Your task to perform on an android device: allow notifications from all sites in the chrome app Image 0: 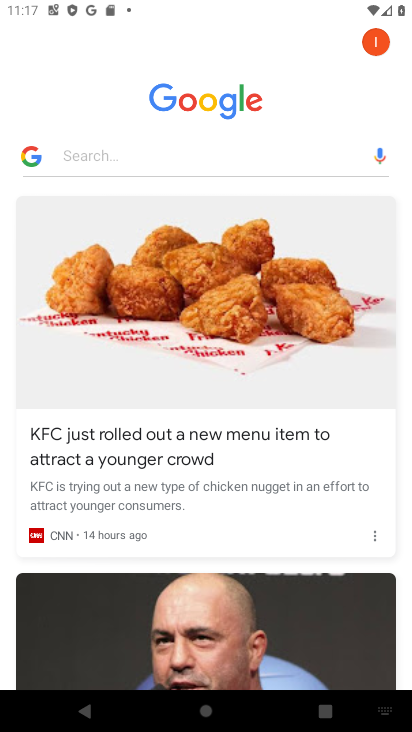
Step 0: press home button
Your task to perform on an android device: allow notifications from all sites in the chrome app Image 1: 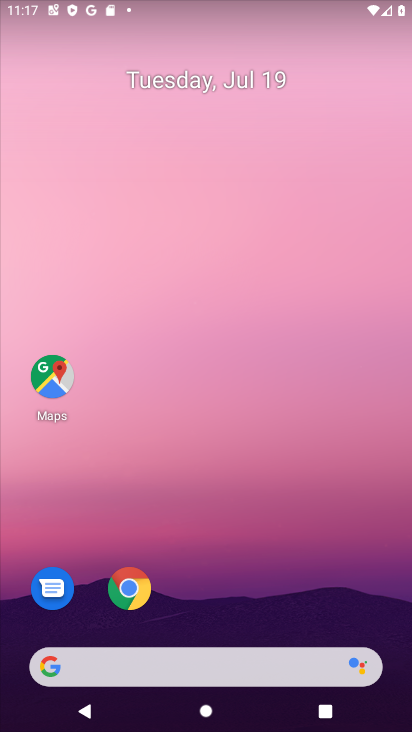
Step 1: drag from (230, 726) to (195, 338)
Your task to perform on an android device: allow notifications from all sites in the chrome app Image 2: 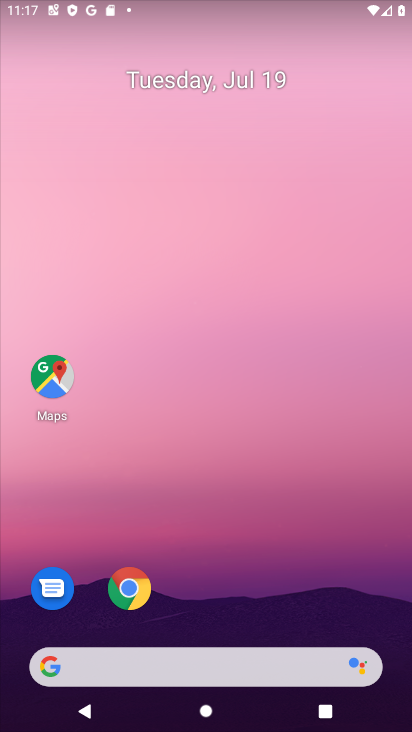
Step 2: drag from (235, 722) to (251, 235)
Your task to perform on an android device: allow notifications from all sites in the chrome app Image 3: 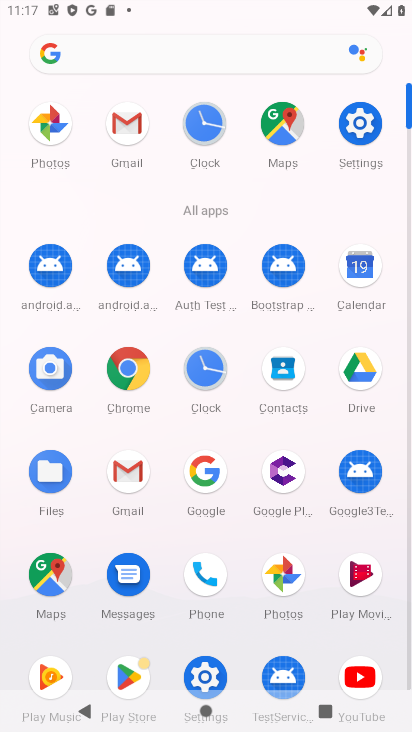
Step 3: click (131, 374)
Your task to perform on an android device: allow notifications from all sites in the chrome app Image 4: 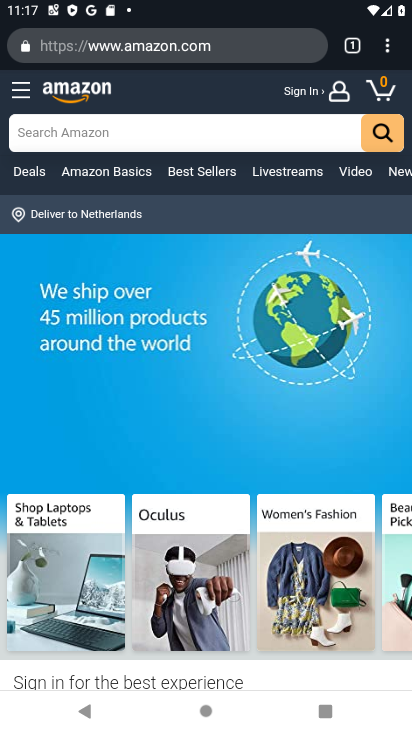
Step 4: click (389, 48)
Your task to perform on an android device: allow notifications from all sites in the chrome app Image 5: 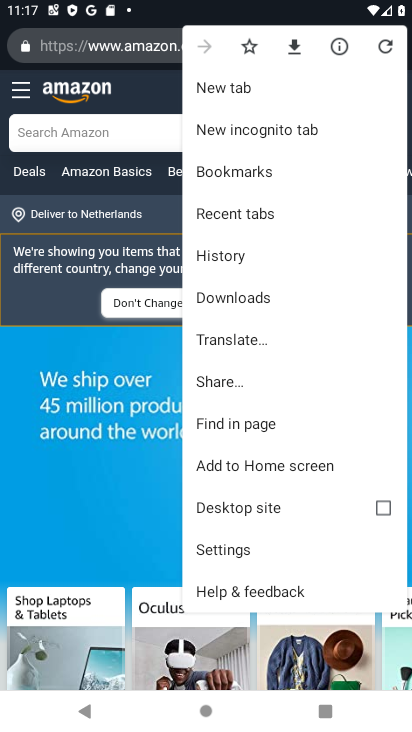
Step 5: click (218, 558)
Your task to perform on an android device: allow notifications from all sites in the chrome app Image 6: 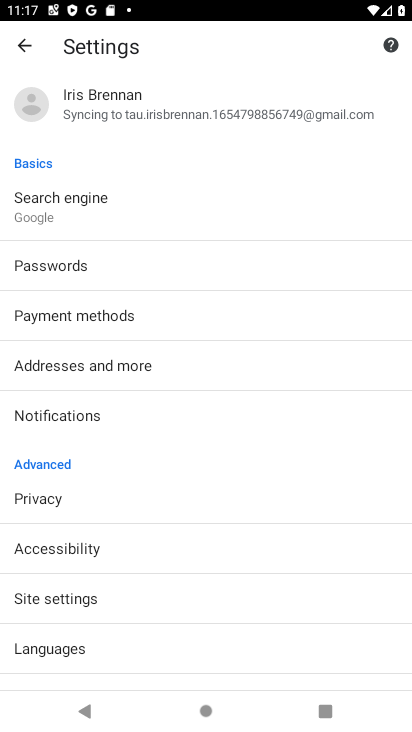
Step 6: click (26, 589)
Your task to perform on an android device: allow notifications from all sites in the chrome app Image 7: 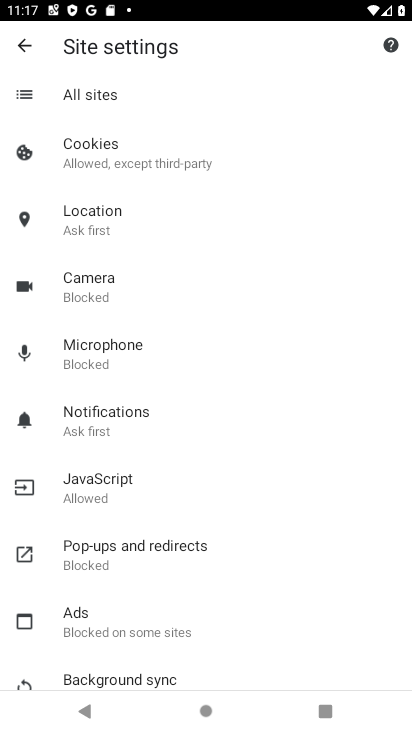
Step 7: click (103, 426)
Your task to perform on an android device: allow notifications from all sites in the chrome app Image 8: 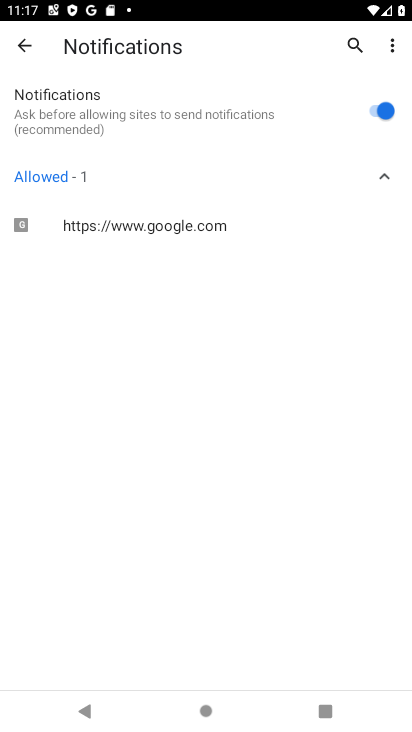
Step 8: task complete